Your task to perform on an android device: Search for Italian restaurants on Maps Image 0: 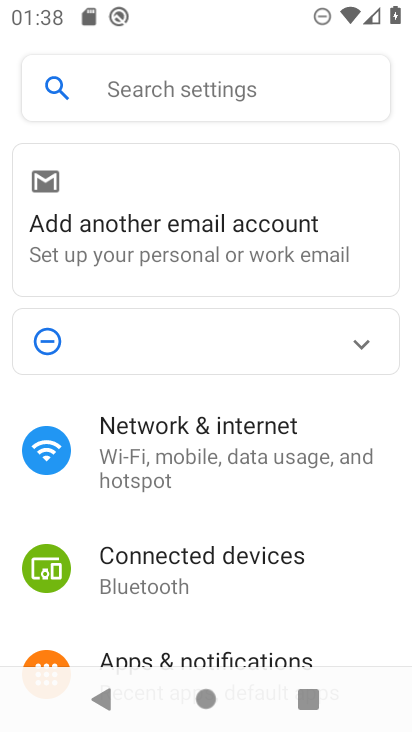
Step 0: press home button
Your task to perform on an android device: Search for Italian restaurants on Maps Image 1: 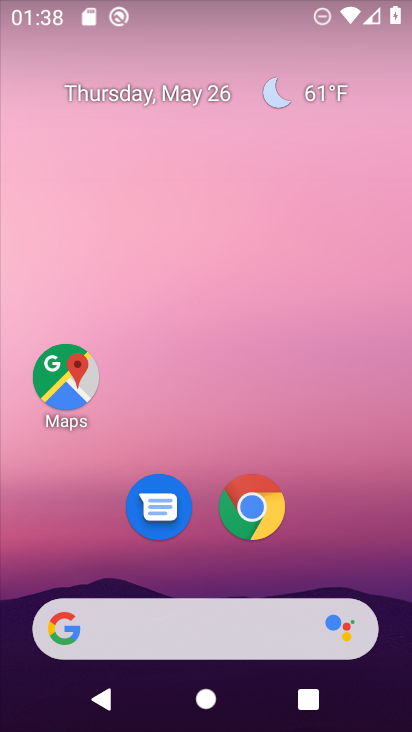
Step 1: click (76, 367)
Your task to perform on an android device: Search for Italian restaurants on Maps Image 2: 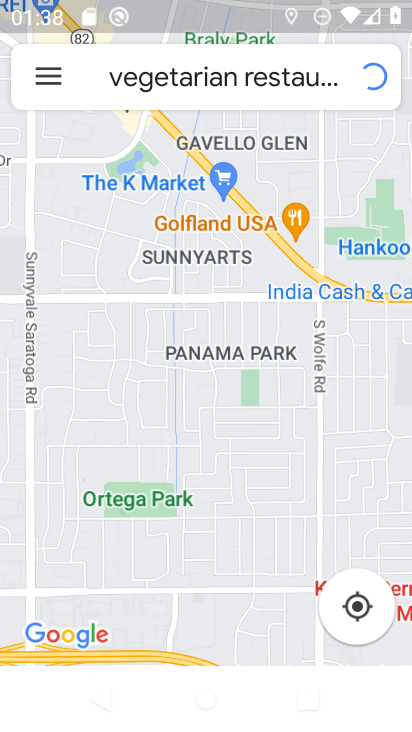
Step 2: click (257, 91)
Your task to perform on an android device: Search for Italian restaurants on Maps Image 3: 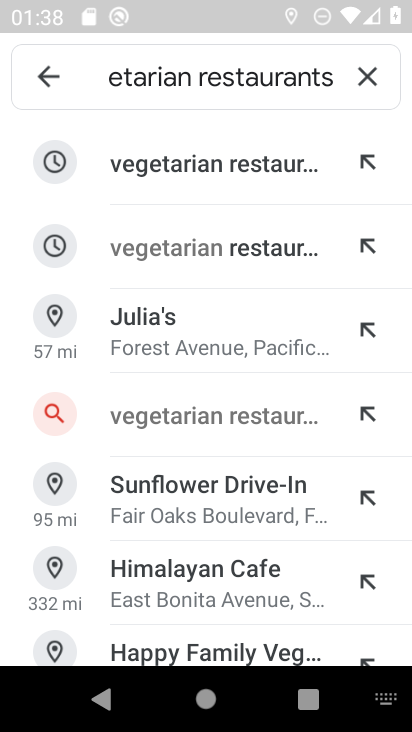
Step 3: click (367, 82)
Your task to perform on an android device: Search for Italian restaurants on Maps Image 4: 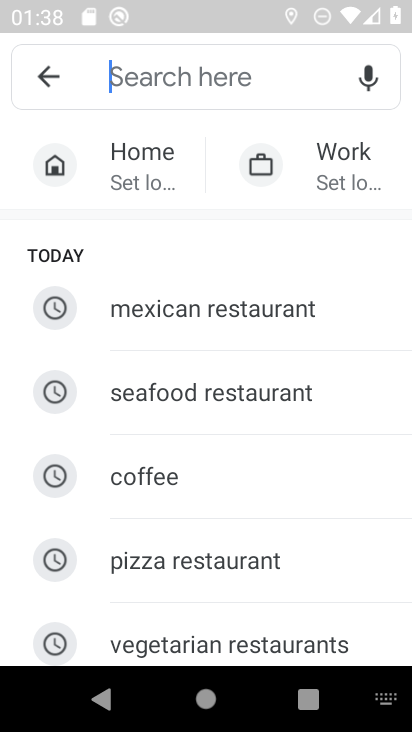
Step 4: drag from (208, 591) to (303, 258)
Your task to perform on an android device: Search for Italian restaurants on Maps Image 5: 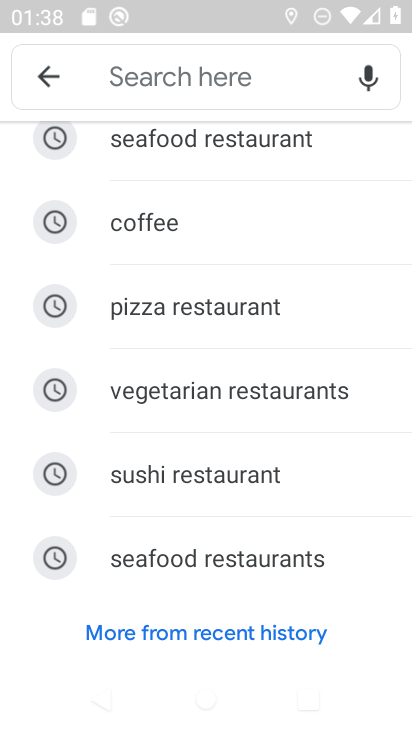
Step 5: type "ittalian"
Your task to perform on an android device: Search for Italian restaurants on Maps Image 6: 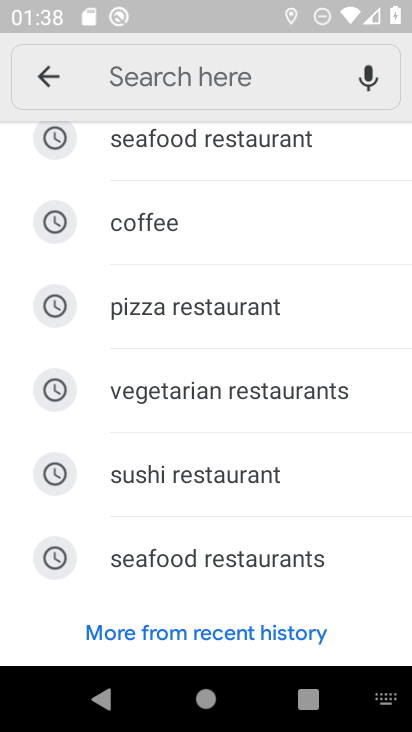
Step 6: task complete